Your task to perform on an android device: toggle javascript in the chrome app Image 0: 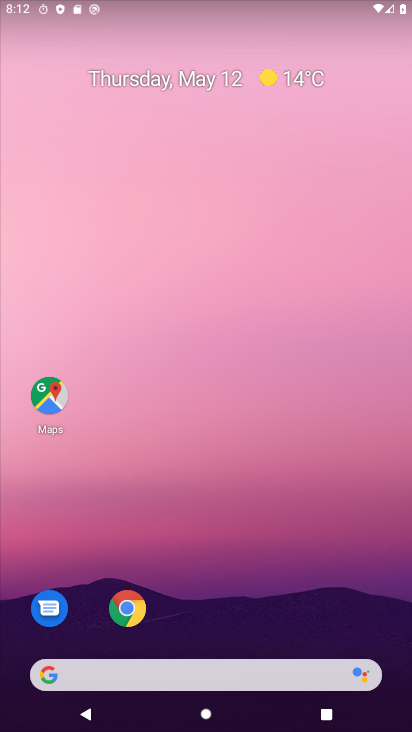
Step 0: click (144, 622)
Your task to perform on an android device: toggle javascript in the chrome app Image 1: 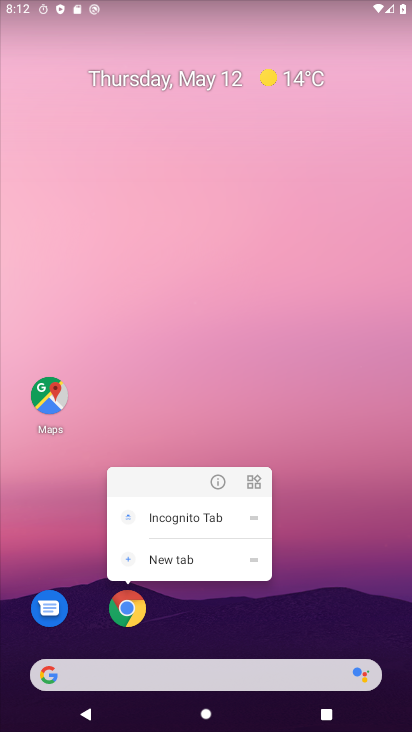
Step 1: click (143, 627)
Your task to perform on an android device: toggle javascript in the chrome app Image 2: 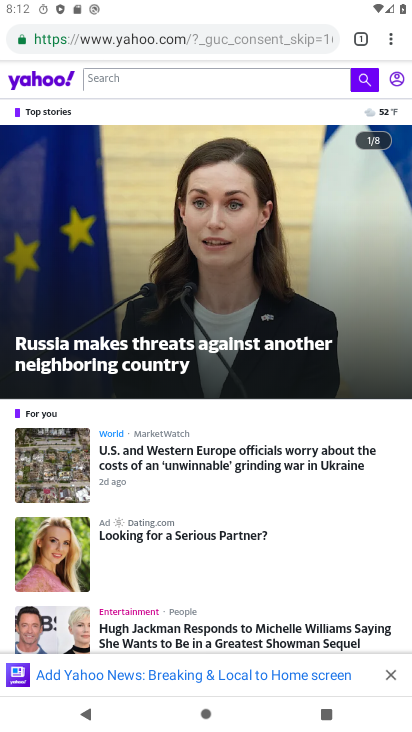
Step 2: click (369, 41)
Your task to perform on an android device: toggle javascript in the chrome app Image 3: 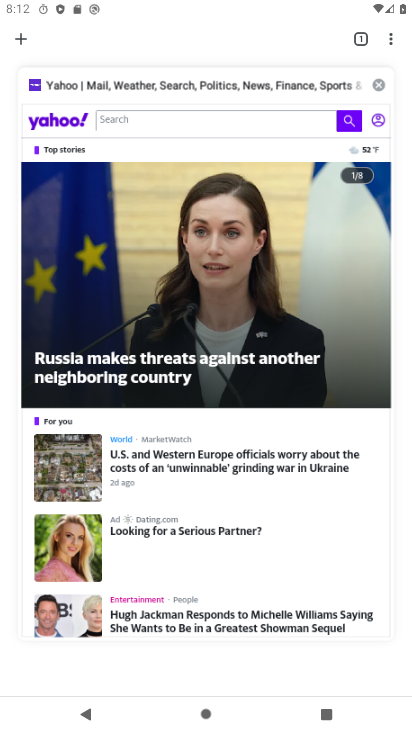
Step 3: click (386, 33)
Your task to perform on an android device: toggle javascript in the chrome app Image 4: 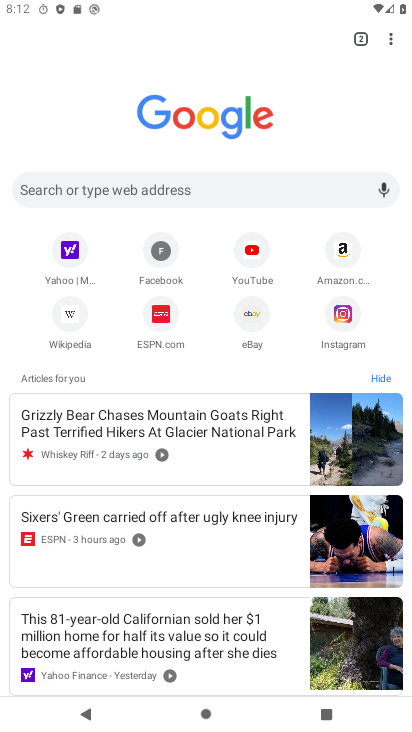
Step 4: click (386, 33)
Your task to perform on an android device: toggle javascript in the chrome app Image 5: 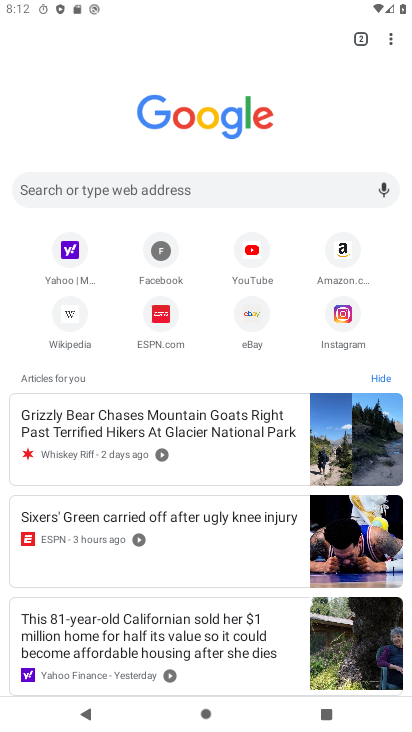
Step 5: click (391, 47)
Your task to perform on an android device: toggle javascript in the chrome app Image 6: 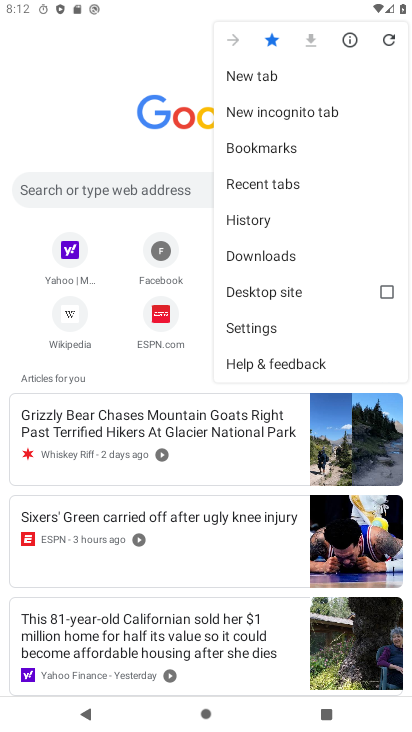
Step 6: click (274, 328)
Your task to perform on an android device: toggle javascript in the chrome app Image 7: 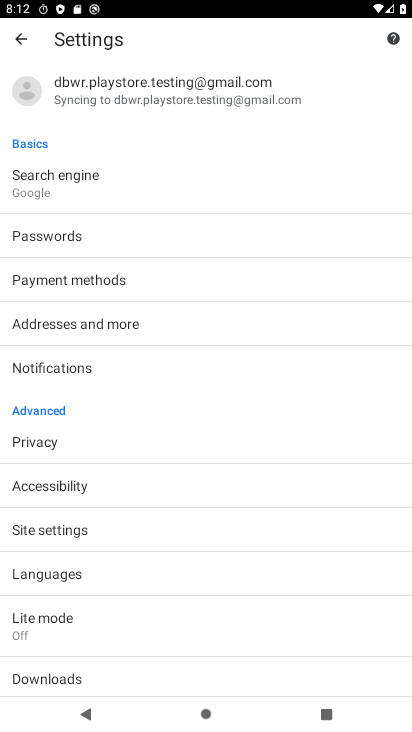
Step 7: drag from (115, 622) to (227, 227)
Your task to perform on an android device: toggle javascript in the chrome app Image 8: 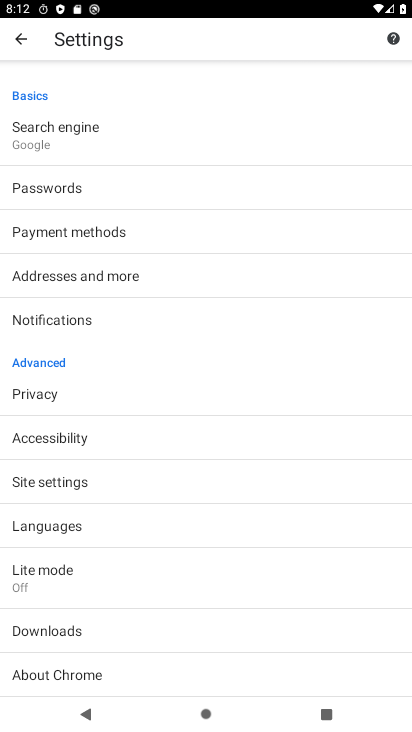
Step 8: click (54, 482)
Your task to perform on an android device: toggle javascript in the chrome app Image 9: 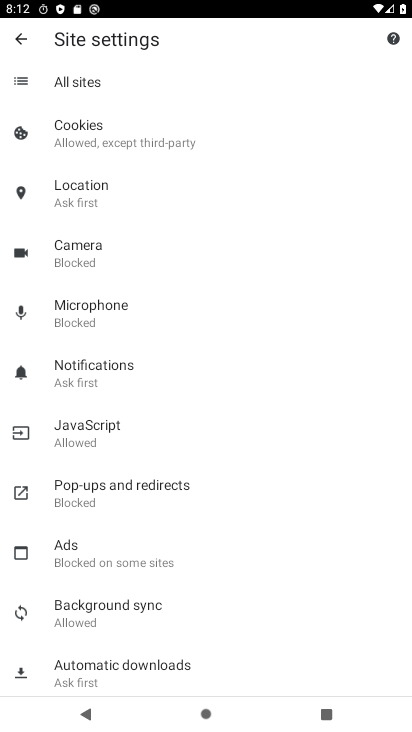
Step 9: click (82, 432)
Your task to perform on an android device: toggle javascript in the chrome app Image 10: 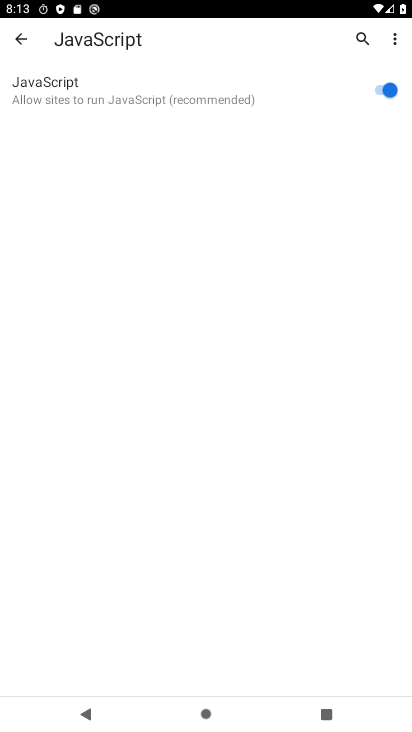
Step 10: task complete